Your task to perform on an android device: Clear the cart on ebay. Search for "bose soundsport free" on ebay, select the first entry, add it to the cart, then select checkout. Image 0: 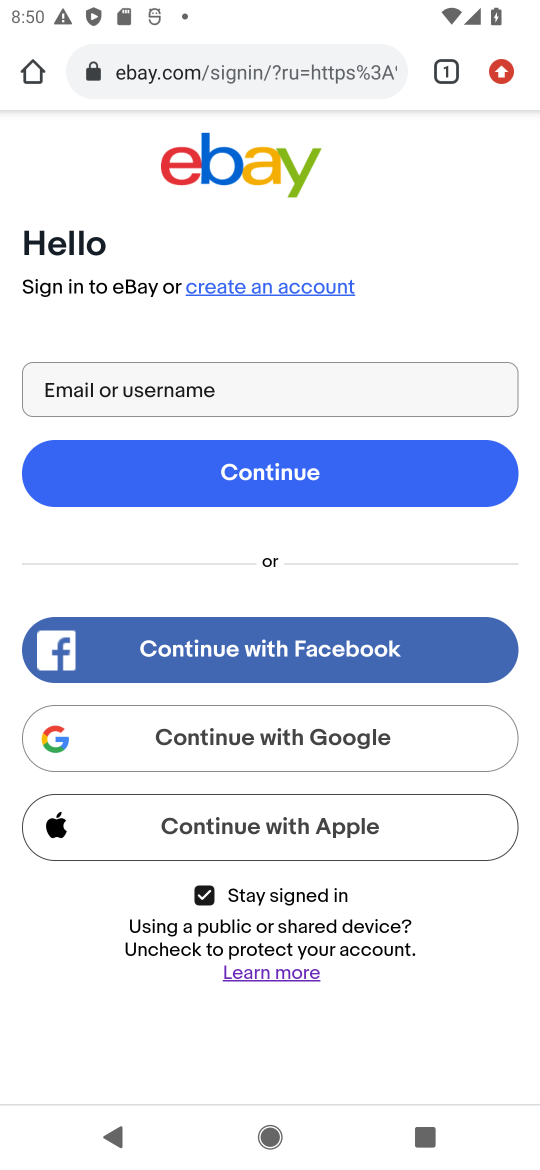
Step 0: click (215, 160)
Your task to perform on an android device: Clear the cart on ebay. Search for "bose soundsport free" on ebay, select the first entry, add it to the cart, then select checkout. Image 1: 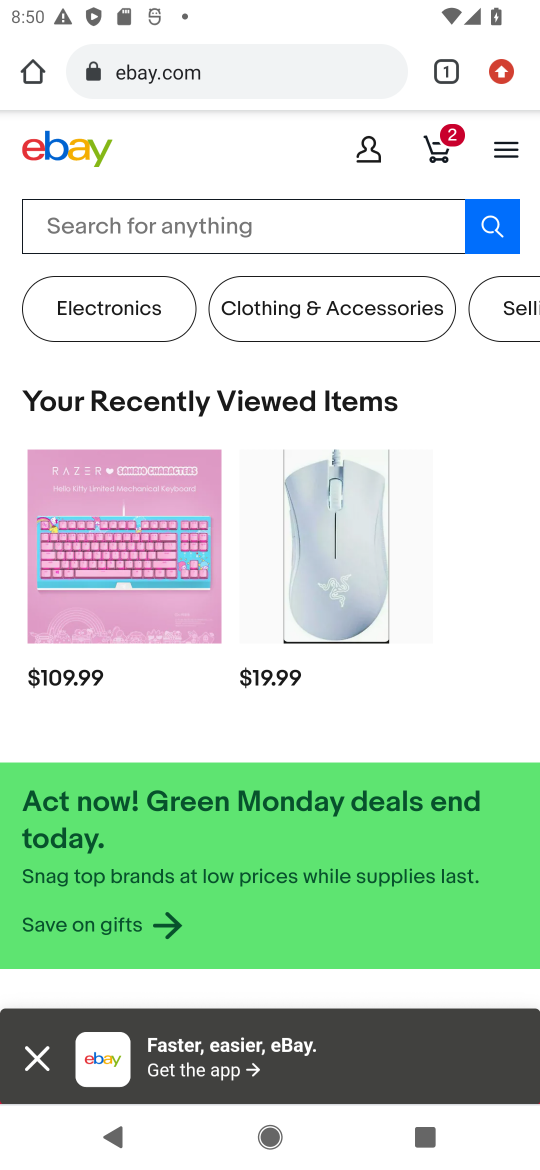
Step 1: click (436, 158)
Your task to perform on an android device: Clear the cart on ebay. Search for "bose soundsport free" on ebay, select the first entry, add it to the cart, then select checkout. Image 2: 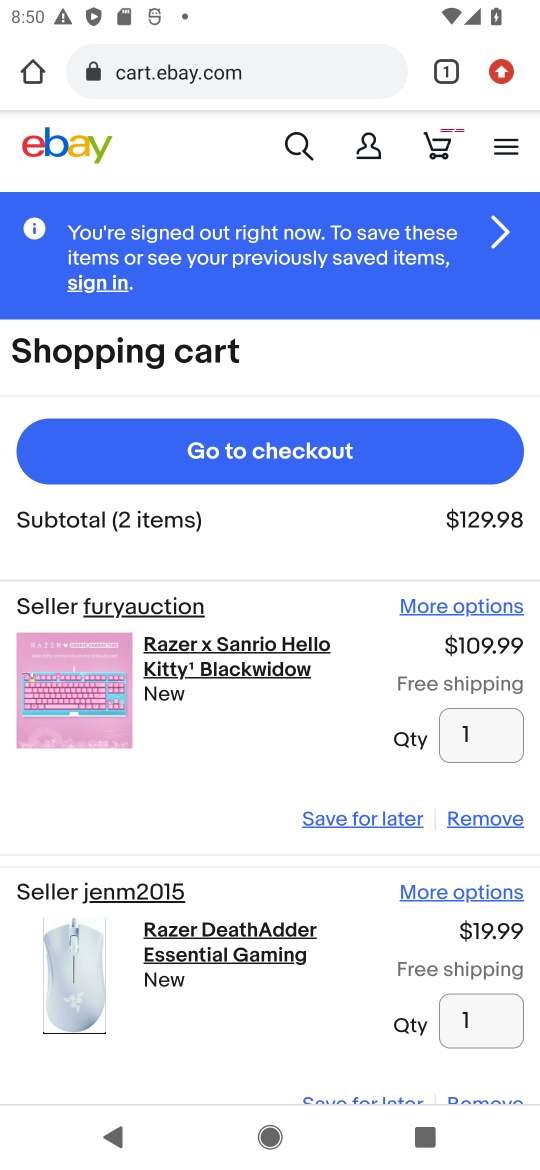
Step 2: click (485, 823)
Your task to perform on an android device: Clear the cart on ebay. Search for "bose soundsport free" on ebay, select the first entry, add it to the cart, then select checkout. Image 3: 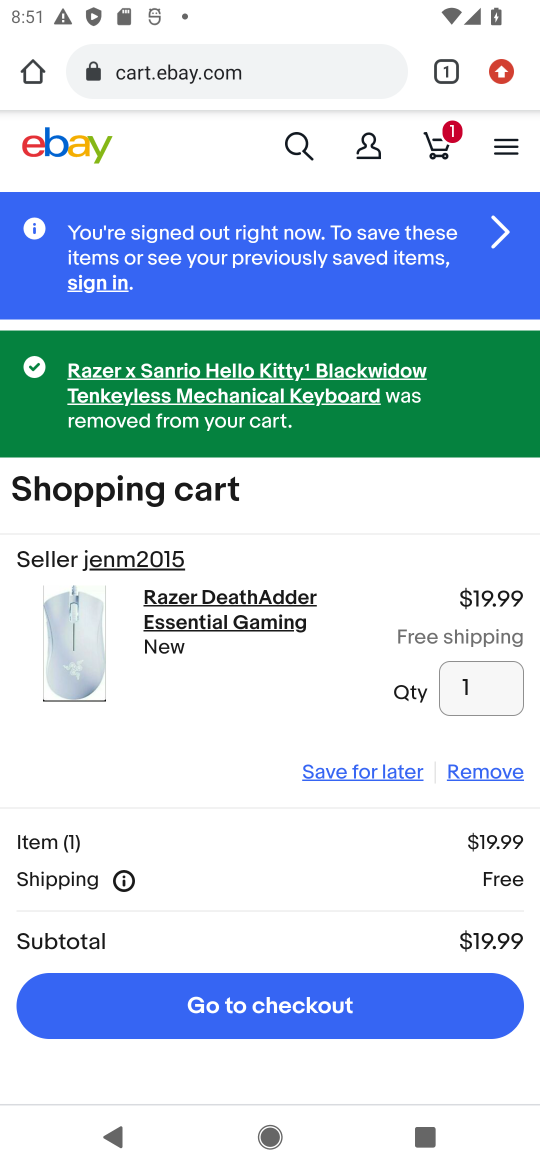
Step 3: click (471, 775)
Your task to perform on an android device: Clear the cart on ebay. Search for "bose soundsport free" on ebay, select the first entry, add it to the cart, then select checkout. Image 4: 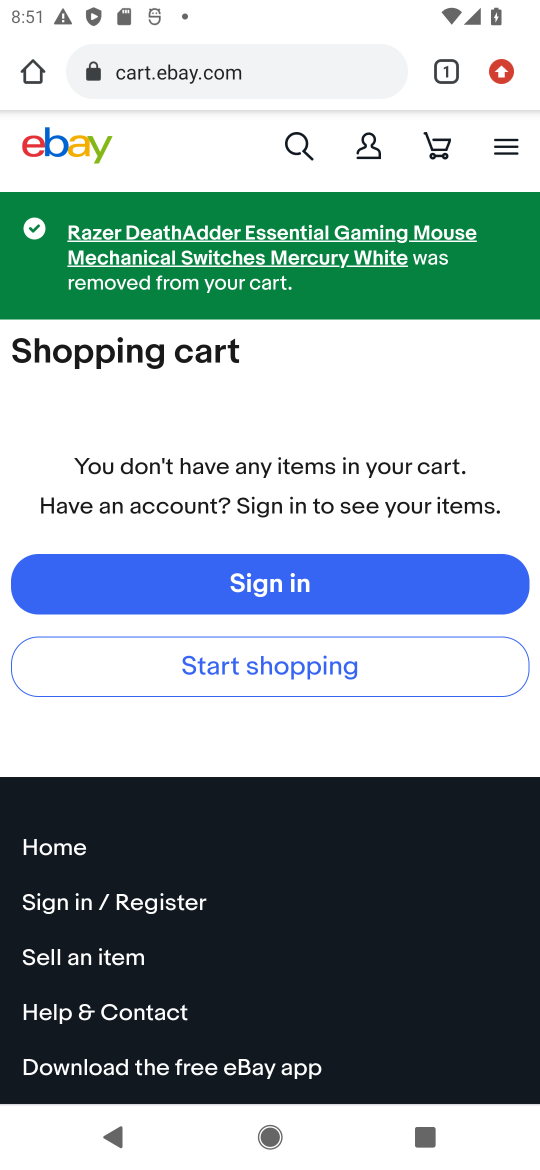
Step 4: click (304, 153)
Your task to perform on an android device: Clear the cart on ebay. Search for "bose soundsport free" on ebay, select the first entry, add it to the cart, then select checkout. Image 5: 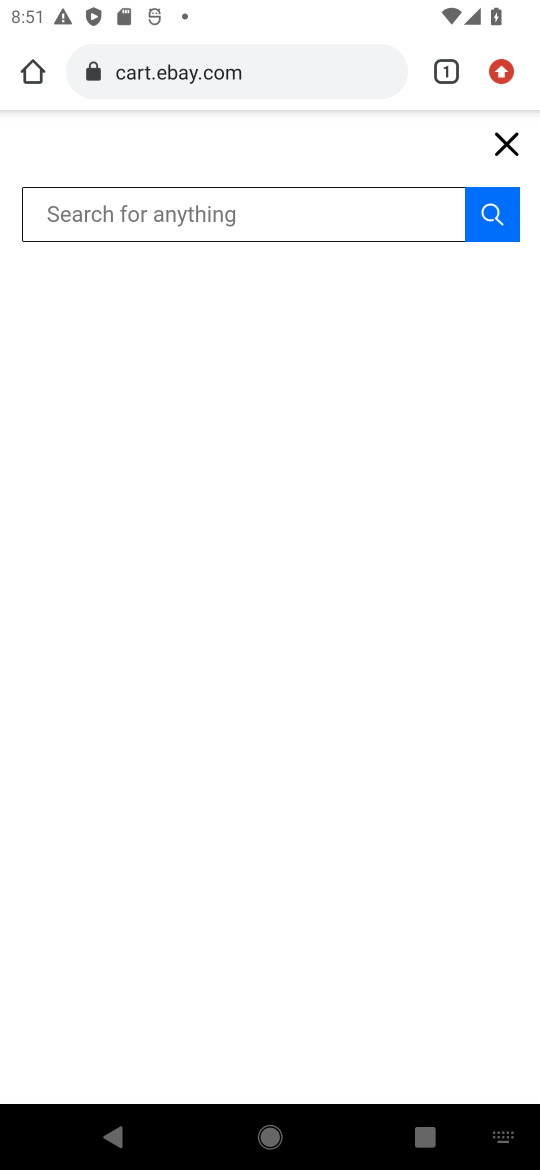
Step 5: click (308, 218)
Your task to perform on an android device: Clear the cart on ebay. Search for "bose soundsport free" on ebay, select the first entry, add it to the cart, then select checkout. Image 6: 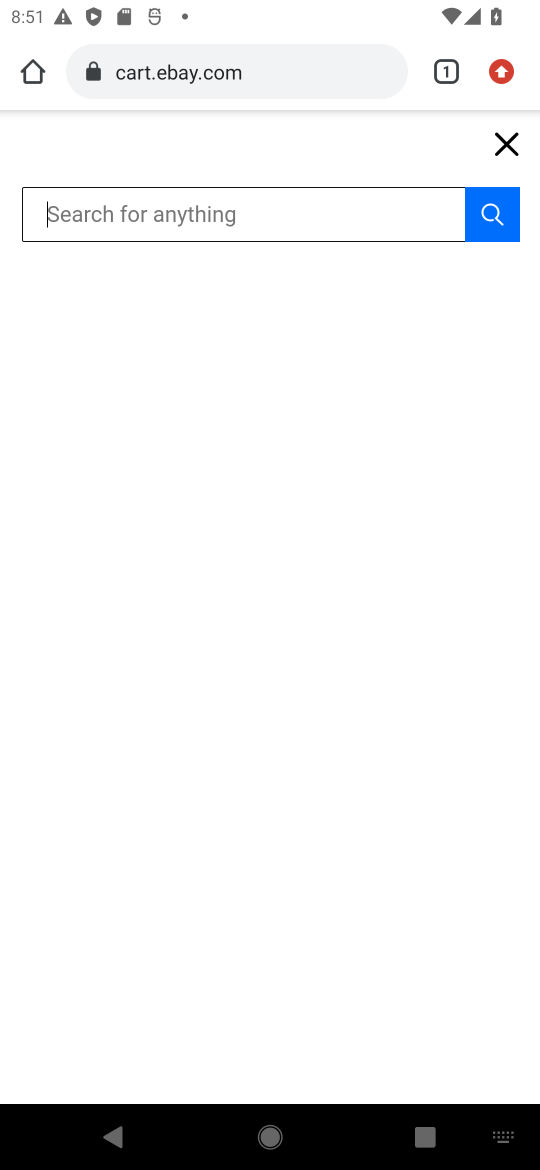
Step 6: type "bose soundsport free"
Your task to perform on an android device: Clear the cart on ebay. Search for "bose soundsport free" on ebay, select the first entry, add it to the cart, then select checkout. Image 7: 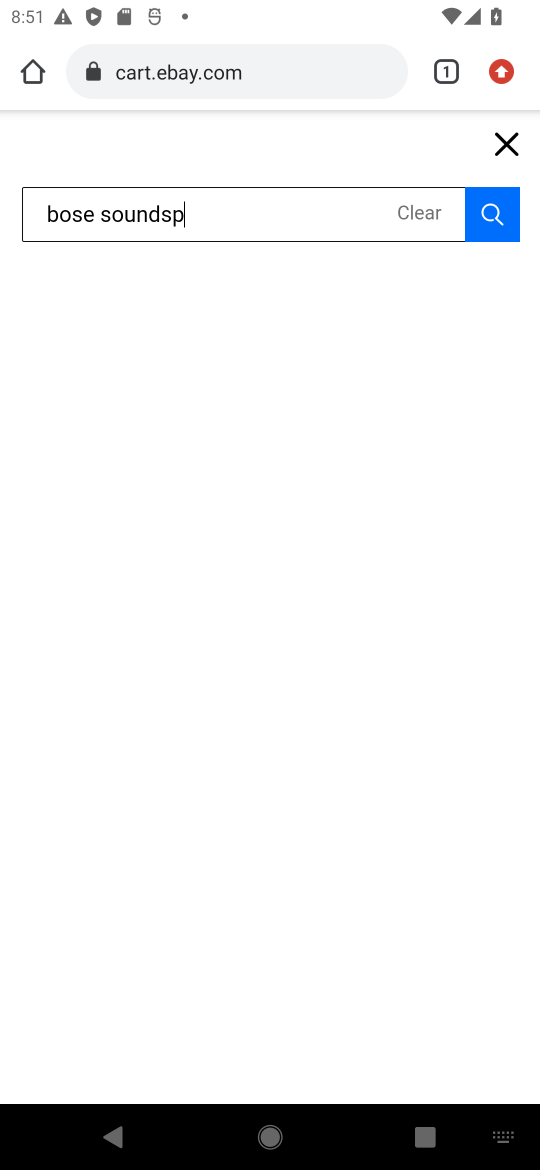
Step 7: press enter
Your task to perform on an android device: Clear the cart on ebay. Search for "bose soundsport free" on ebay, select the first entry, add it to the cart, then select checkout. Image 8: 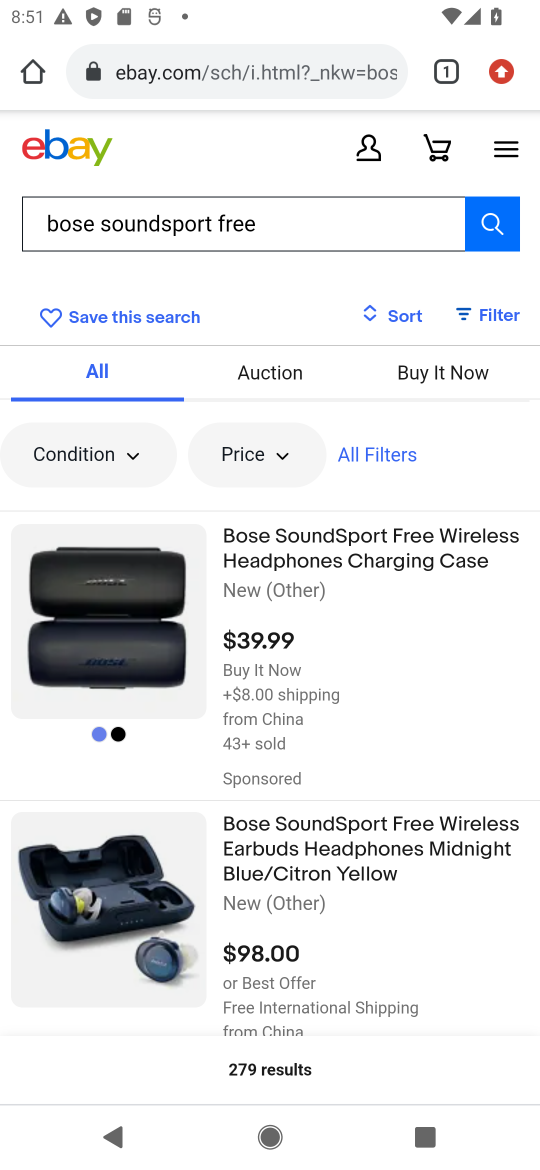
Step 8: click (269, 545)
Your task to perform on an android device: Clear the cart on ebay. Search for "bose soundsport free" on ebay, select the first entry, add it to the cart, then select checkout. Image 9: 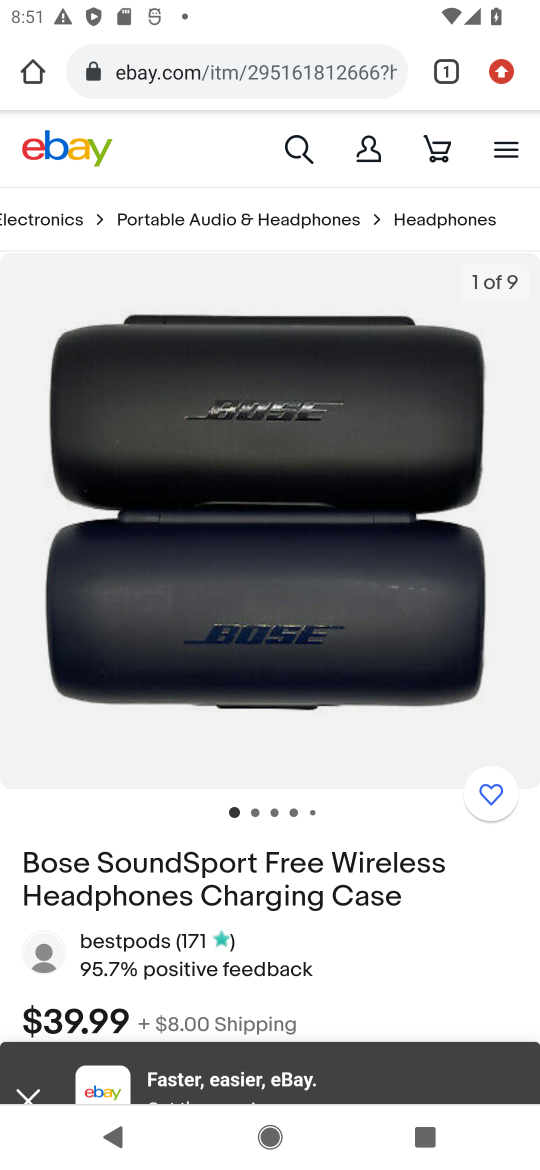
Step 9: drag from (333, 860) to (360, 350)
Your task to perform on an android device: Clear the cart on ebay. Search for "bose soundsport free" on ebay, select the first entry, add it to the cart, then select checkout. Image 10: 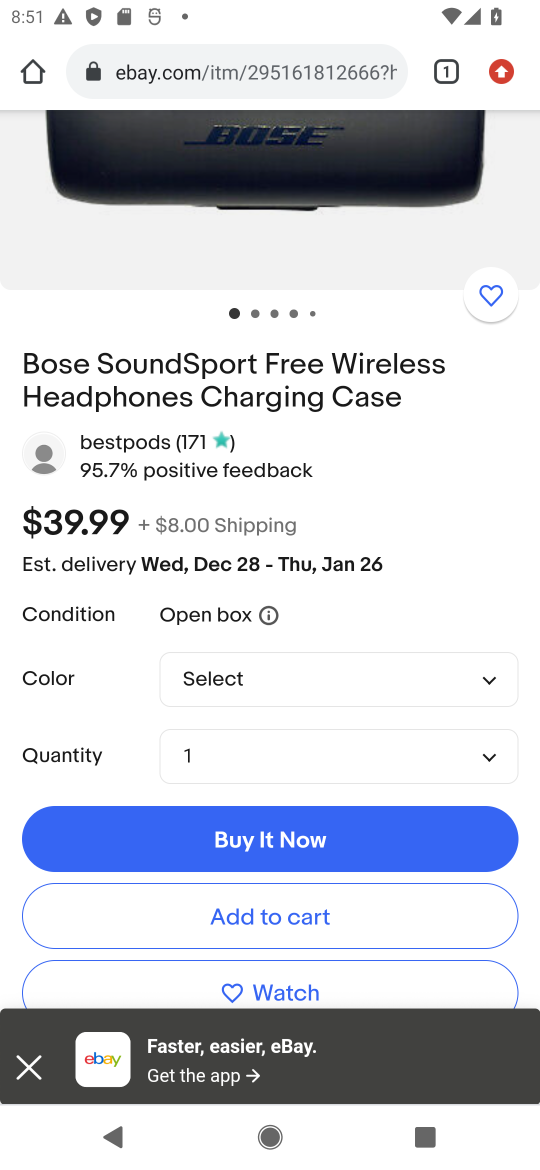
Step 10: click (247, 924)
Your task to perform on an android device: Clear the cart on ebay. Search for "bose soundsport free" on ebay, select the first entry, add it to the cart, then select checkout. Image 11: 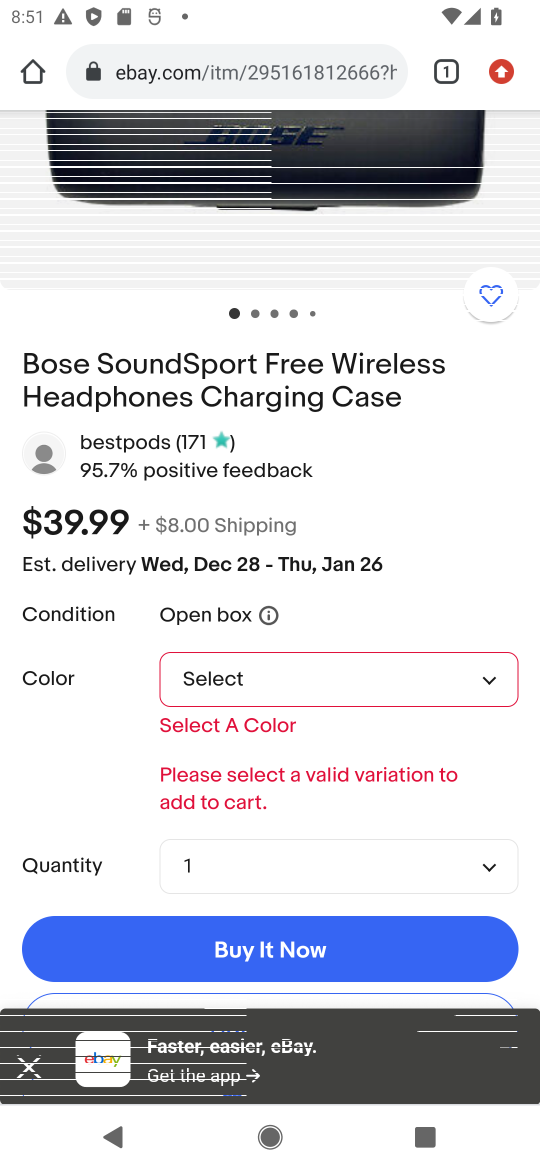
Step 11: click (294, 684)
Your task to perform on an android device: Clear the cart on ebay. Search for "bose soundsport free" on ebay, select the first entry, add it to the cart, then select checkout. Image 12: 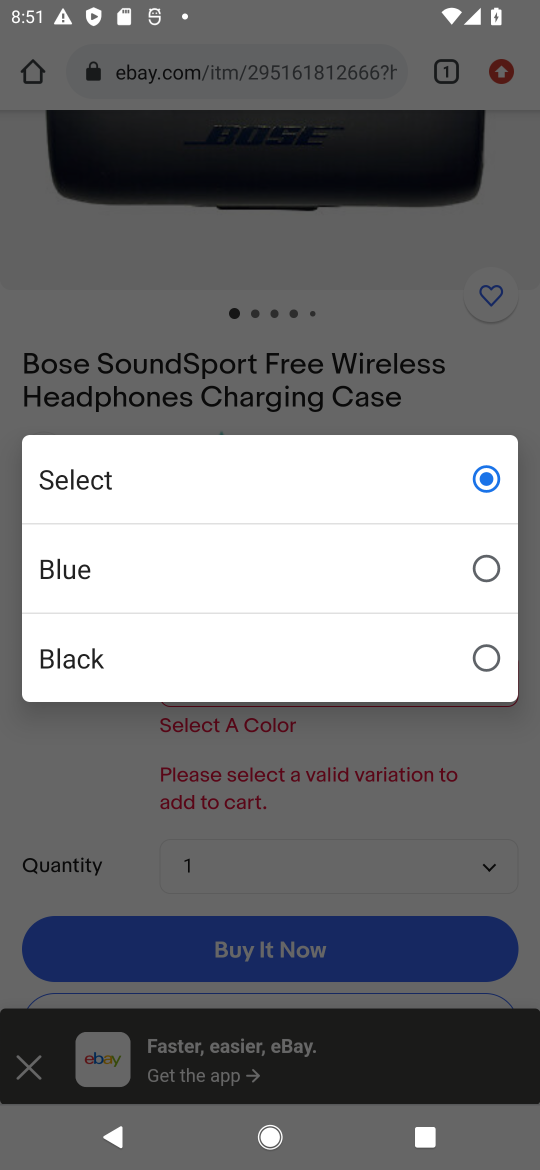
Step 12: click (277, 668)
Your task to perform on an android device: Clear the cart on ebay. Search for "bose soundsport free" on ebay, select the first entry, add it to the cart, then select checkout. Image 13: 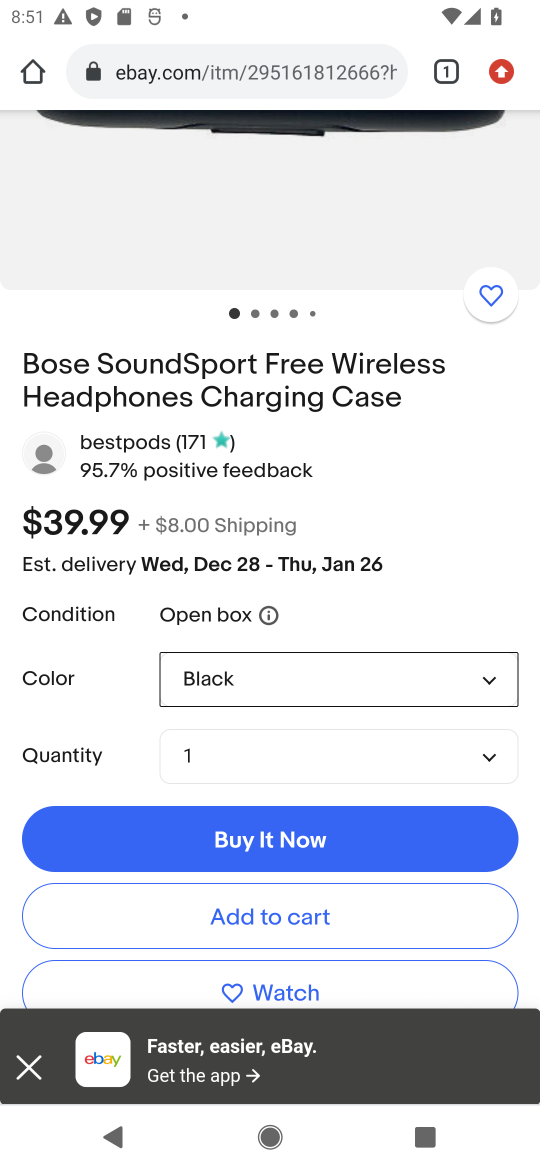
Step 13: click (250, 912)
Your task to perform on an android device: Clear the cart on ebay. Search for "bose soundsport free" on ebay, select the first entry, add it to the cart, then select checkout. Image 14: 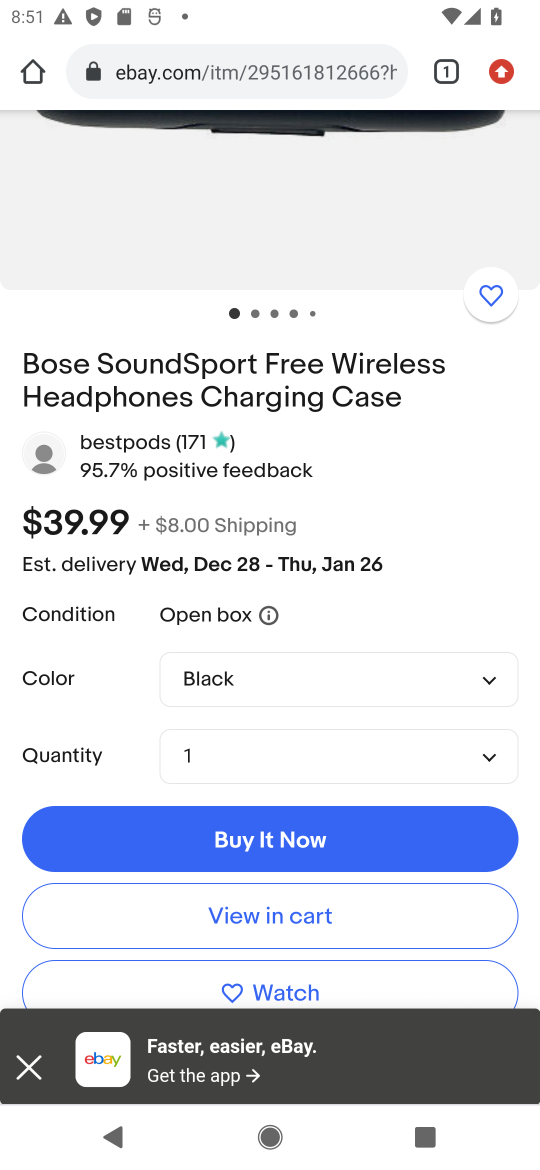
Step 14: click (250, 912)
Your task to perform on an android device: Clear the cart on ebay. Search for "bose soundsport free" on ebay, select the first entry, add it to the cart, then select checkout. Image 15: 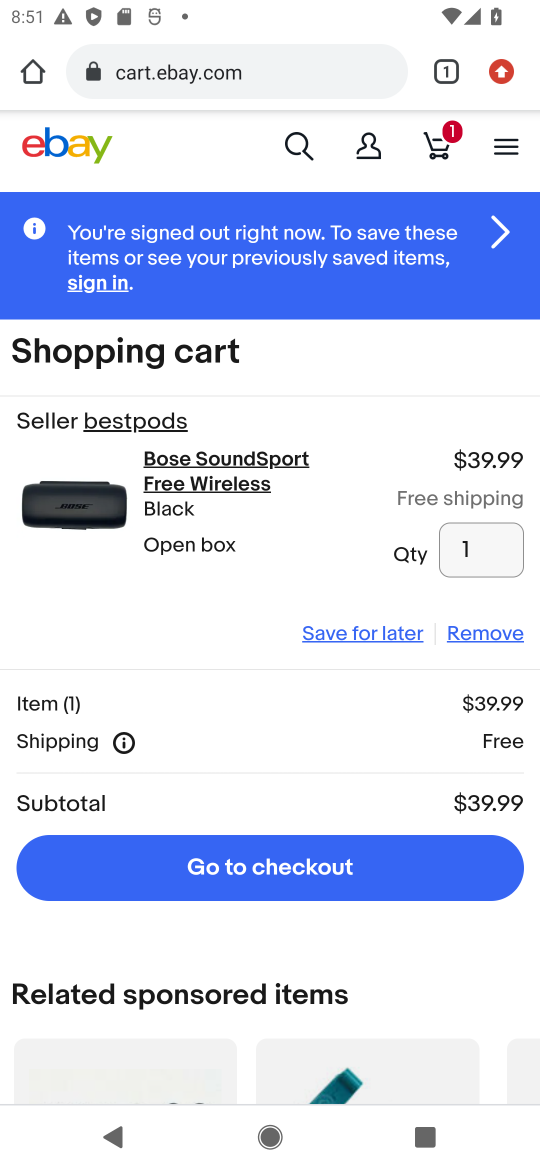
Step 15: click (254, 878)
Your task to perform on an android device: Clear the cart on ebay. Search for "bose soundsport free" on ebay, select the first entry, add it to the cart, then select checkout. Image 16: 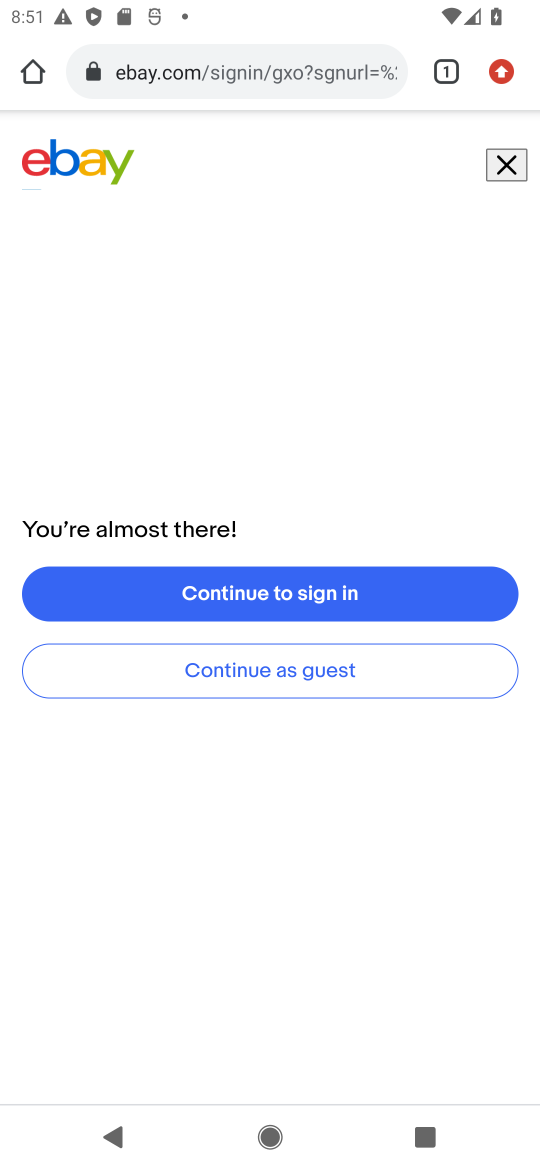
Step 16: click (255, 596)
Your task to perform on an android device: Clear the cart on ebay. Search for "bose soundsport free" on ebay, select the first entry, add it to the cart, then select checkout. Image 17: 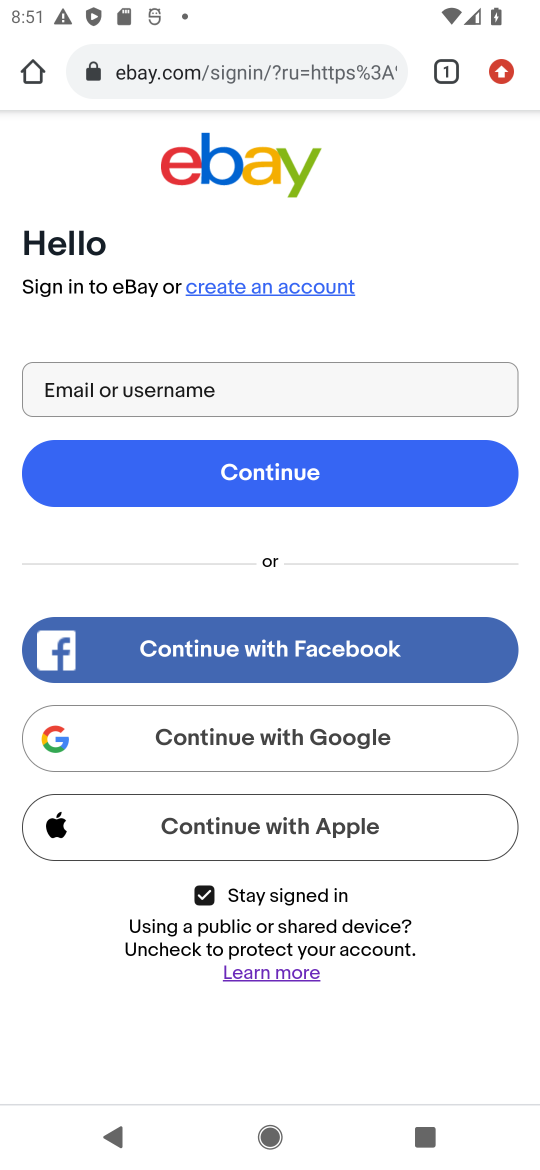
Step 17: task complete